Your task to perform on an android device: Search for 3d printed chess sets on Etsy. Image 0: 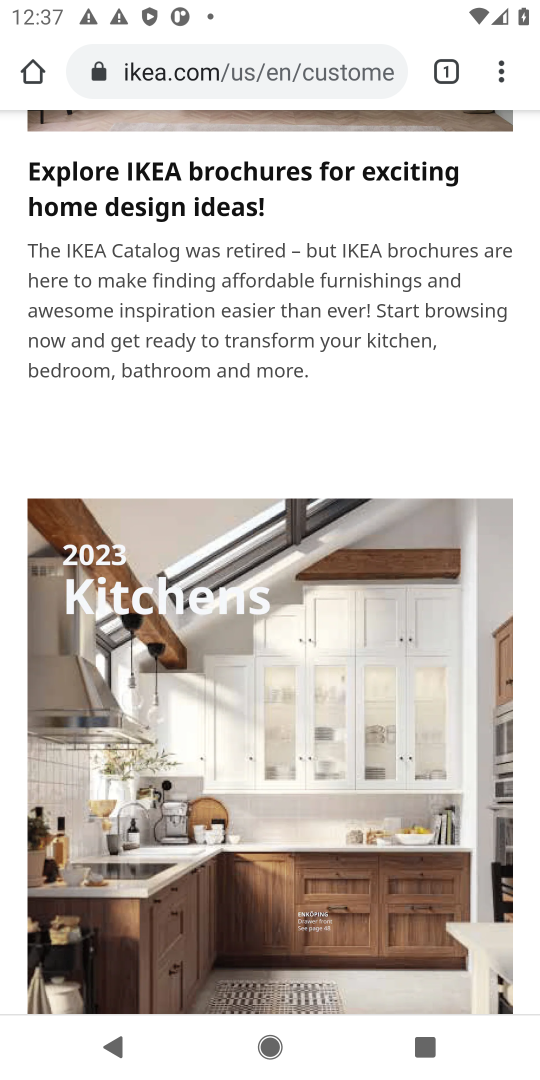
Step 0: click (274, 48)
Your task to perform on an android device: Search for 3d printed chess sets on Etsy. Image 1: 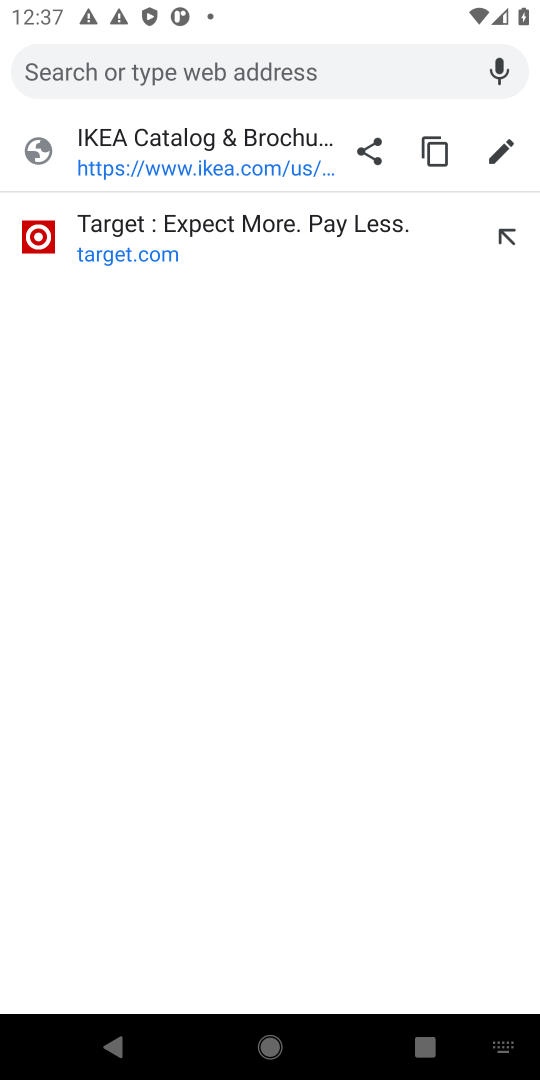
Step 1: type "Etsy"
Your task to perform on an android device: Search for 3d printed chess sets on Etsy. Image 2: 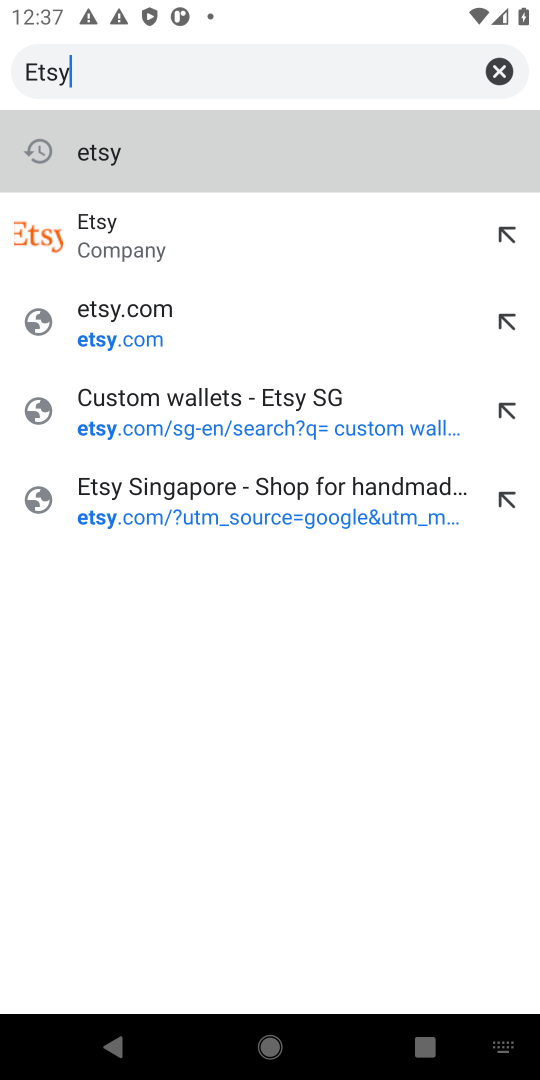
Step 2: click (103, 222)
Your task to perform on an android device: Search for 3d printed chess sets on Etsy. Image 3: 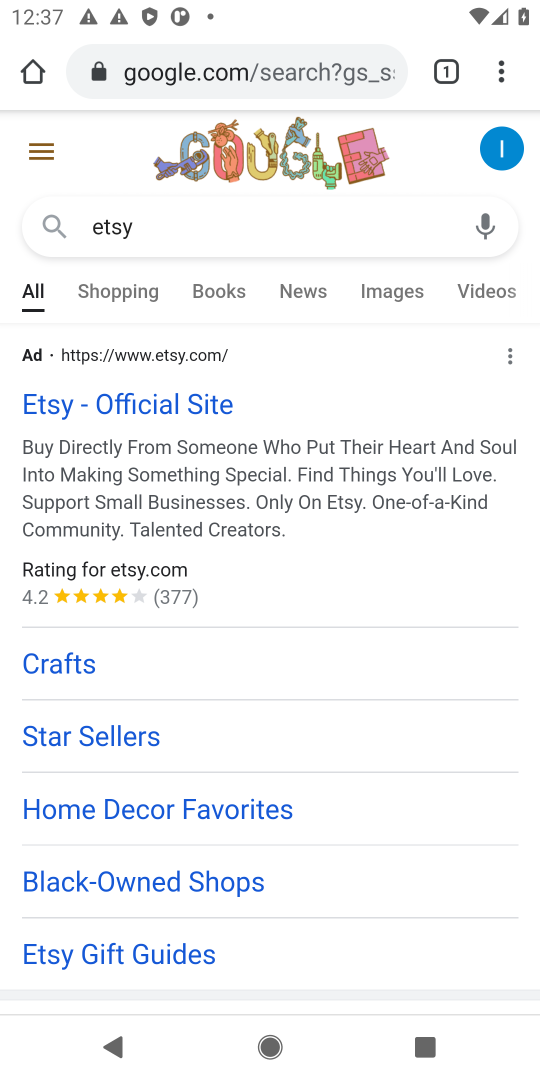
Step 3: click (140, 407)
Your task to perform on an android device: Search for 3d printed chess sets on Etsy. Image 4: 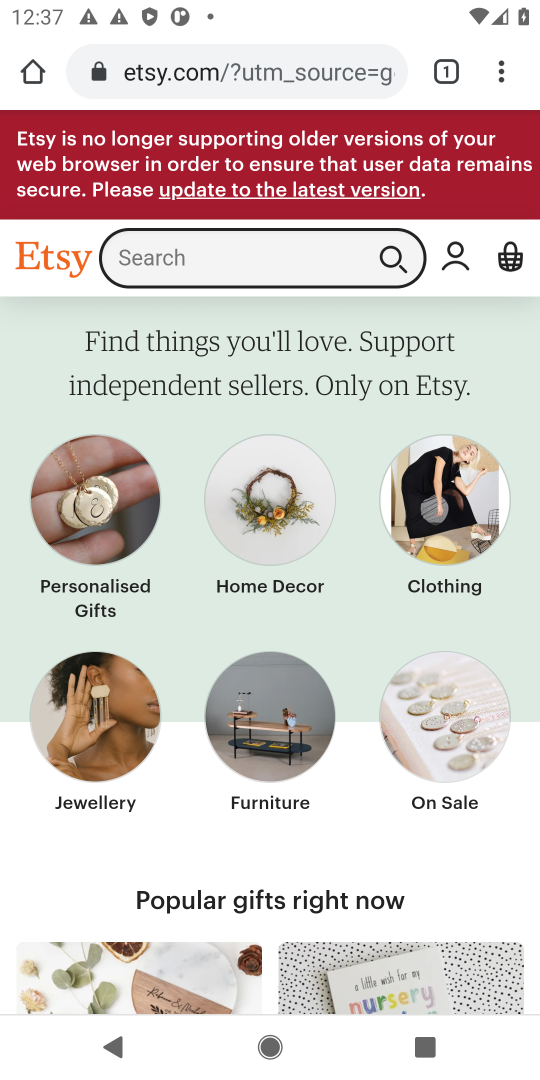
Step 4: click (206, 250)
Your task to perform on an android device: Search for 3d printed chess sets on Etsy. Image 5: 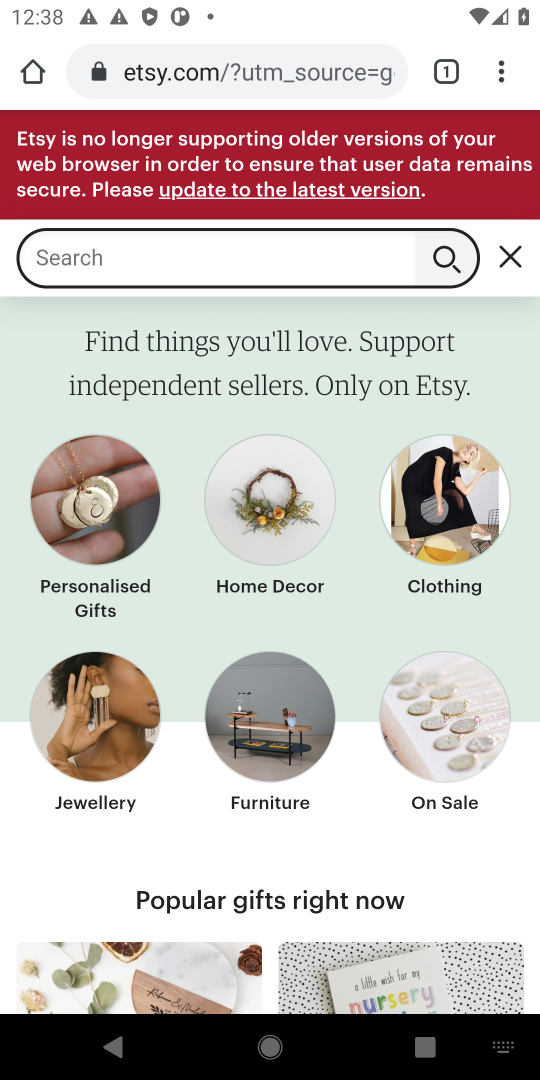
Step 5: type "3d printed chess sets"
Your task to perform on an android device: Search for 3d printed chess sets on Etsy. Image 6: 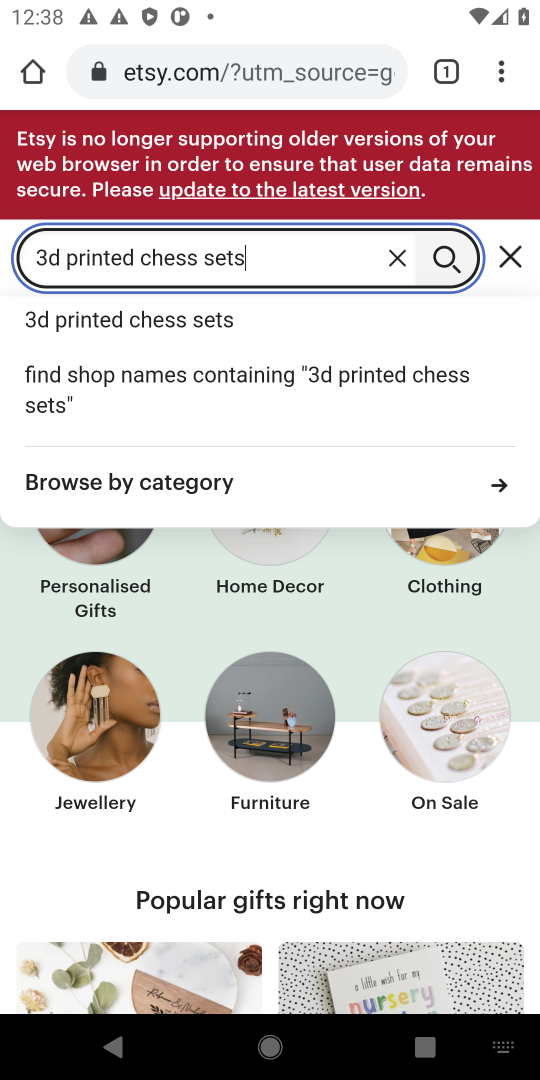
Step 6: click (443, 260)
Your task to perform on an android device: Search for 3d printed chess sets on Etsy. Image 7: 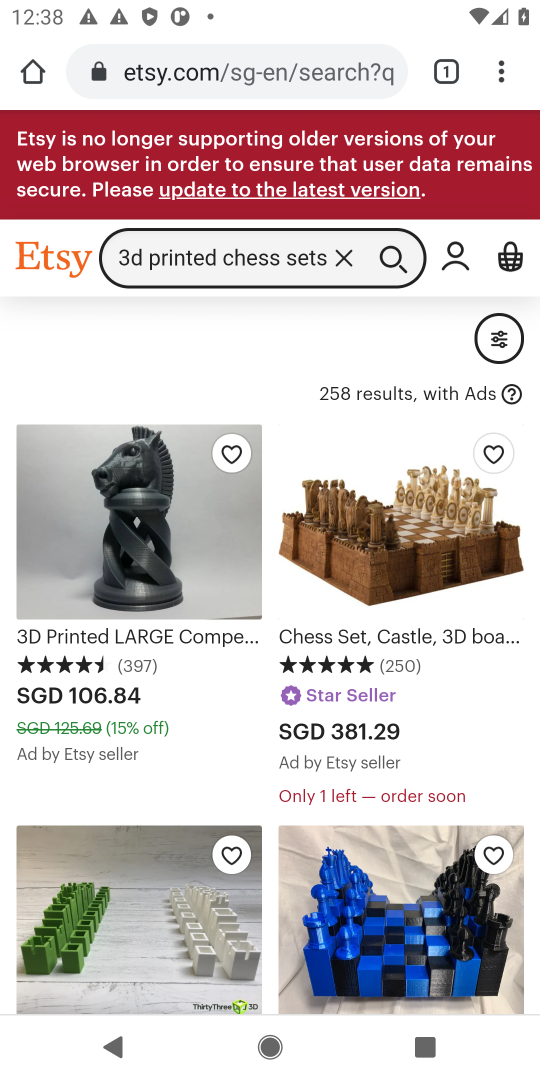
Step 7: click (263, 435)
Your task to perform on an android device: Search for 3d printed chess sets on Etsy. Image 8: 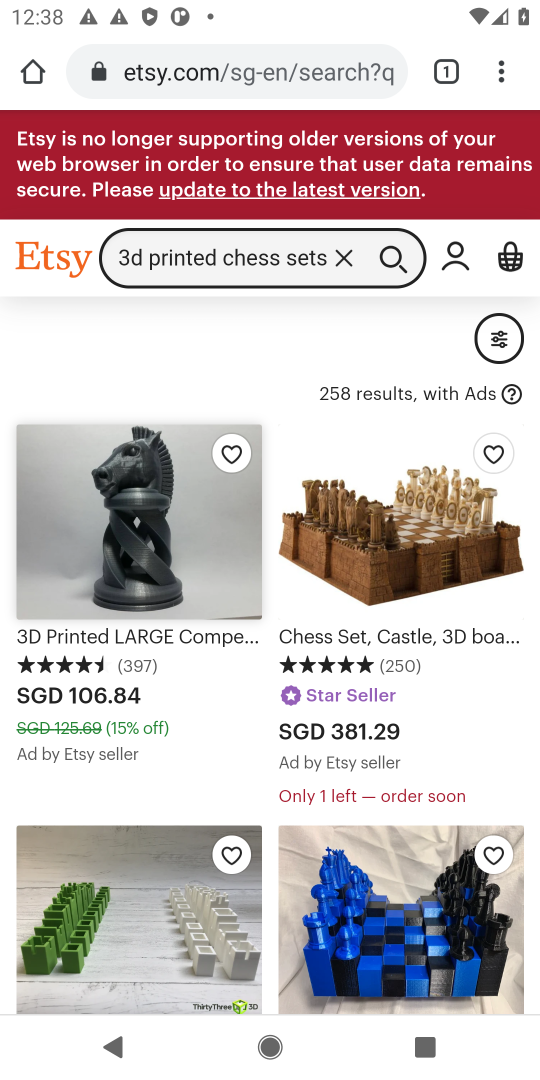
Step 8: drag from (276, 993) to (268, 470)
Your task to perform on an android device: Search for 3d printed chess sets on Etsy. Image 9: 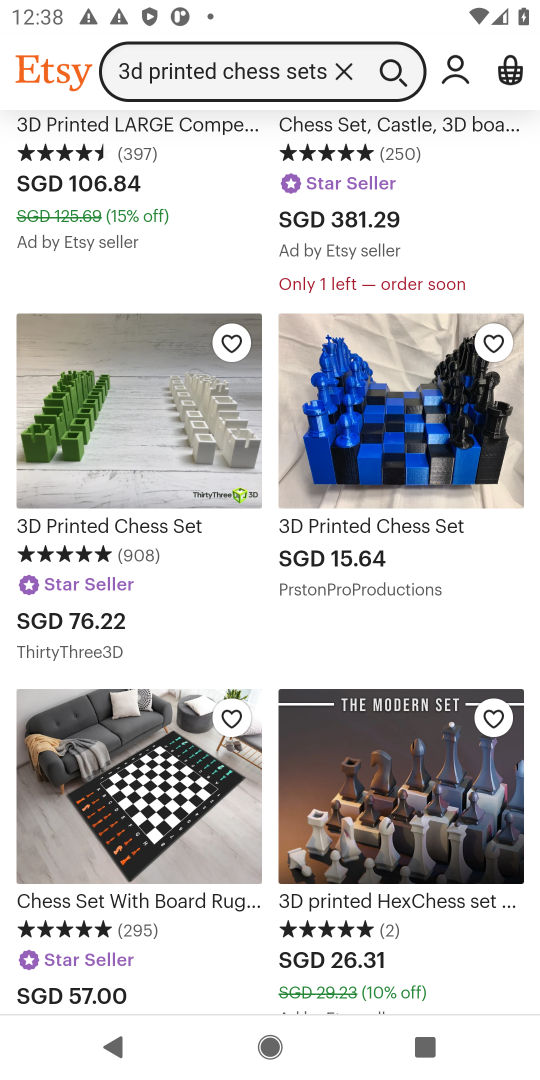
Step 9: drag from (271, 882) to (266, 413)
Your task to perform on an android device: Search for 3d printed chess sets on Etsy. Image 10: 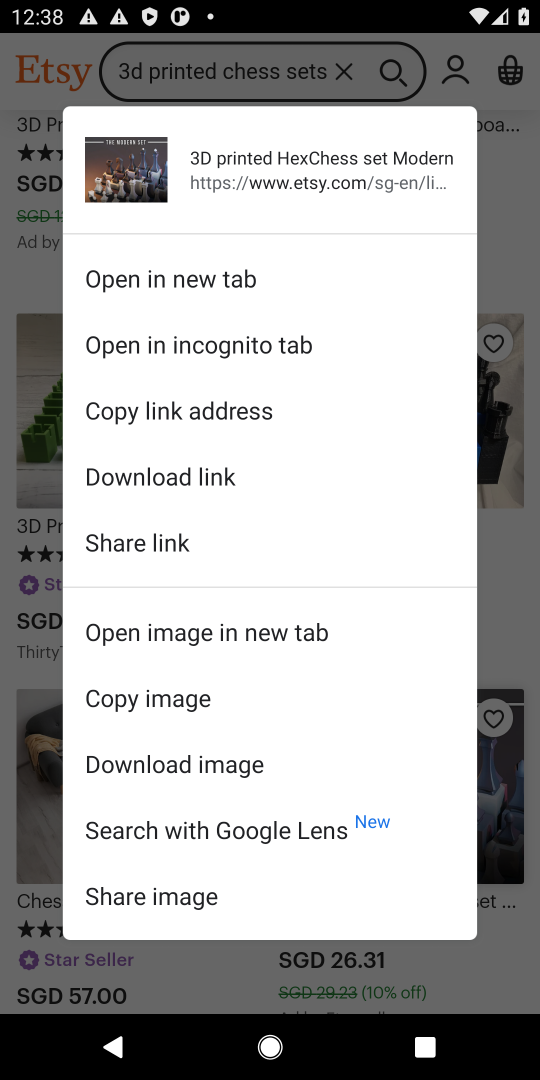
Step 10: click (508, 954)
Your task to perform on an android device: Search for 3d printed chess sets on Etsy. Image 11: 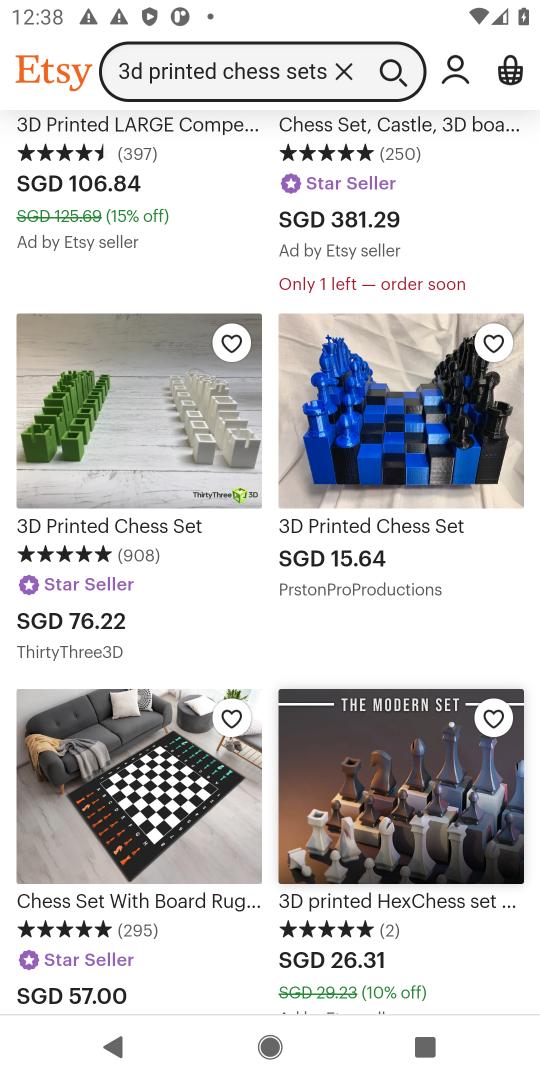
Step 11: task complete